Your task to perform on an android device: Clear the cart on amazon.com. Add bose soundlink to the cart on amazon.com Image 0: 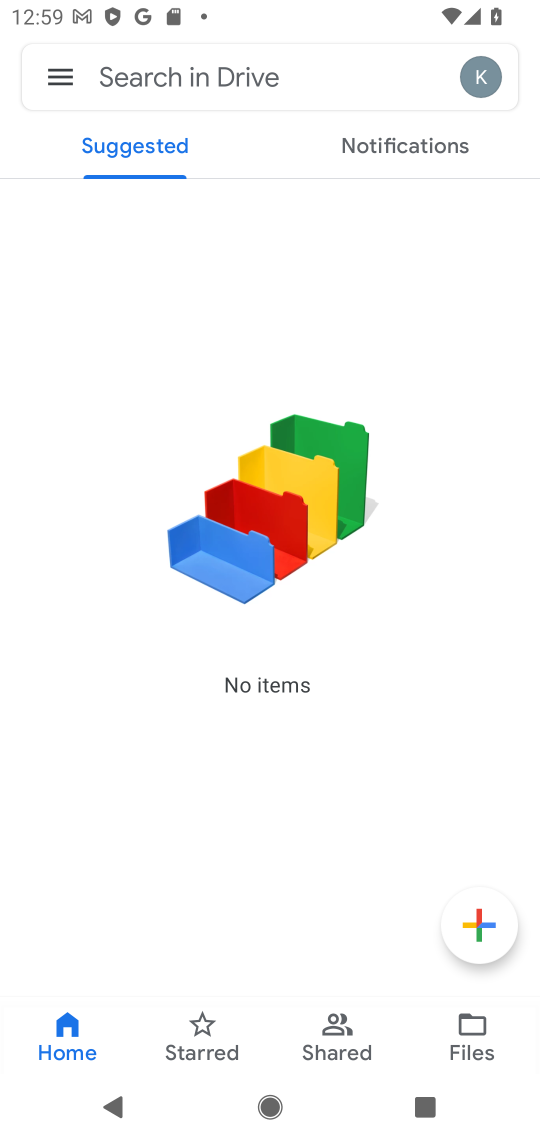
Step 0: press home button
Your task to perform on an android device: Clear the cart on amazon.com. Add bose soundlink to the cart on amazon.com Image 1: 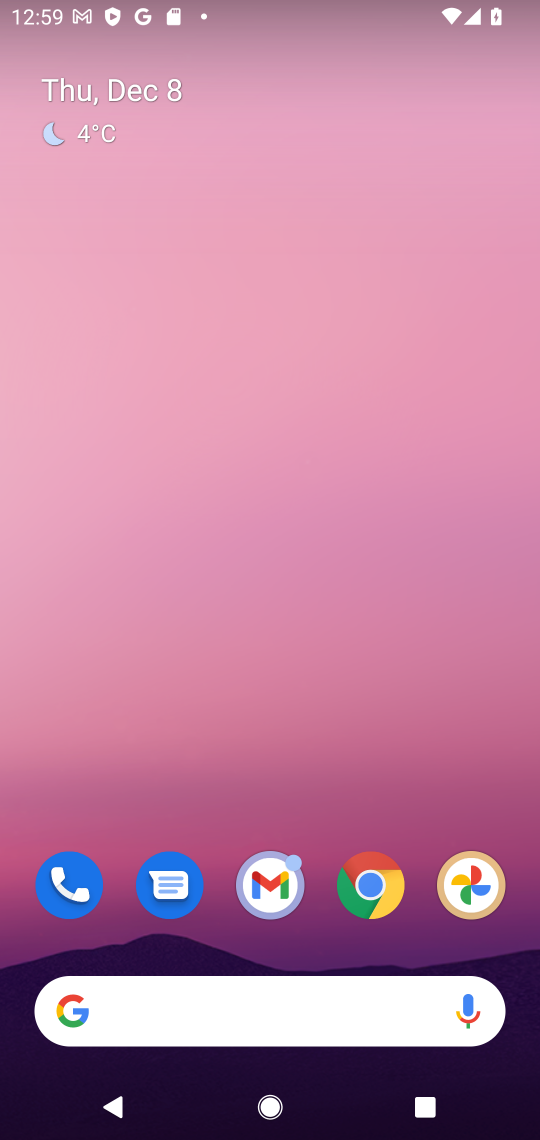
Step 1: click (375, 888)
Your task to perform on an android device: Clear the cart on amazon.com. Add bose soundlink to the cart on amazon.com Image 2: 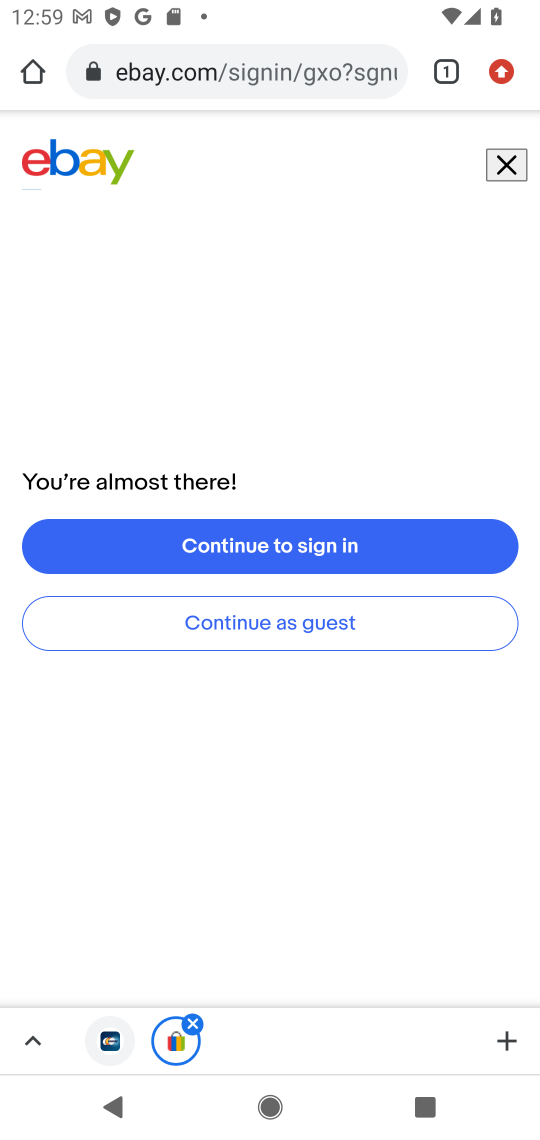
Step 2: click (260, 59)
Your task to perform on an android device: Clear the cart on amazon.com. Add bose soundlink to the cart on amazon.com Image 3: 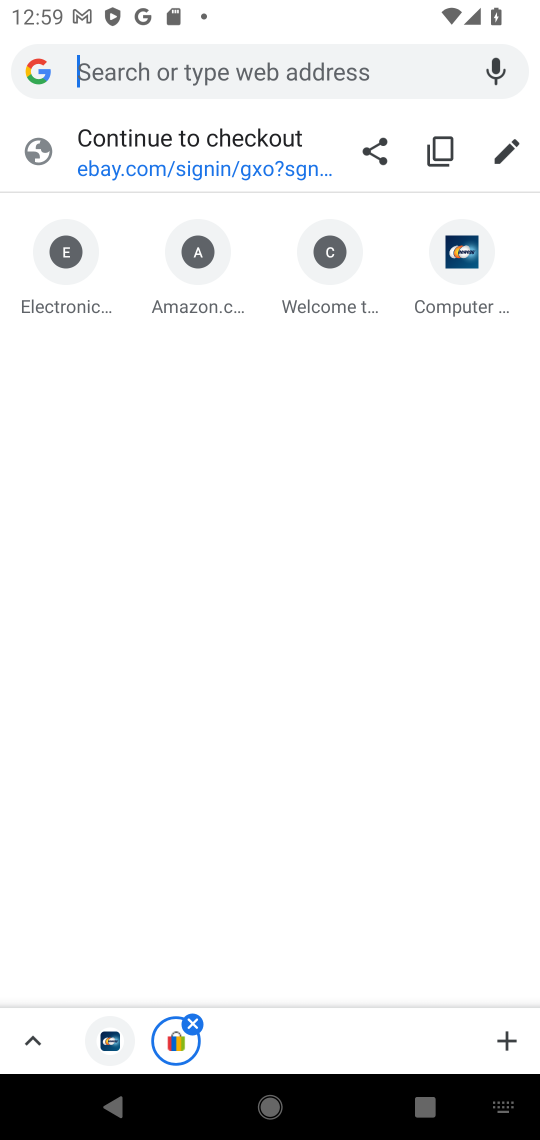
Step 3: type "AMAZON"
Your task to perform on an android device: Clear the cart on amazon.com. Add bose soundlink to the cart on amazon.com Image 4: 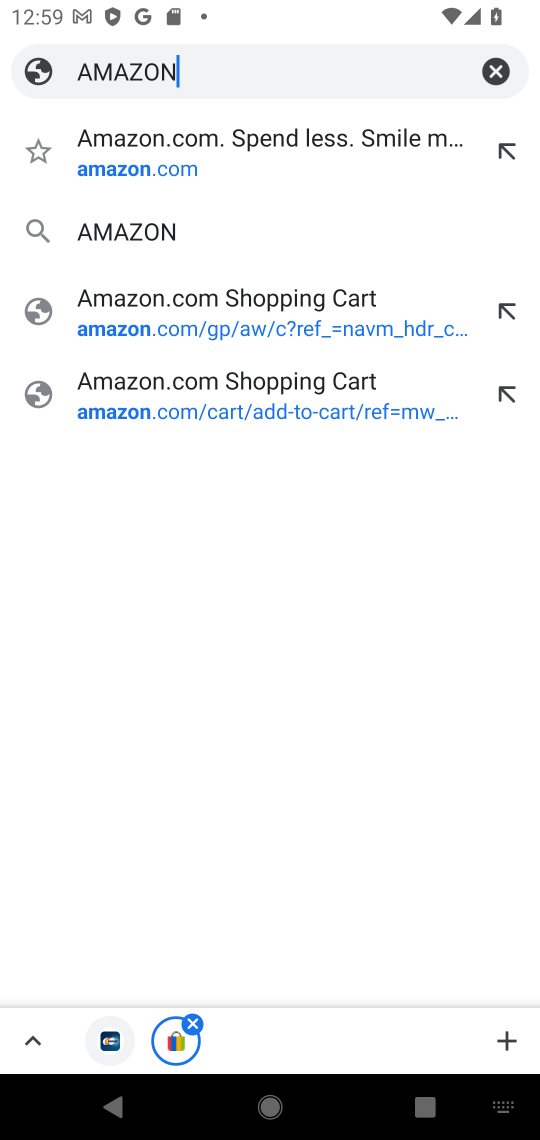
Step 4: click (183, 157)
Your task to perform on an android device: Clear the cart on amazon.com. Add bose soundlink to the cart on amazon.com Image 5: 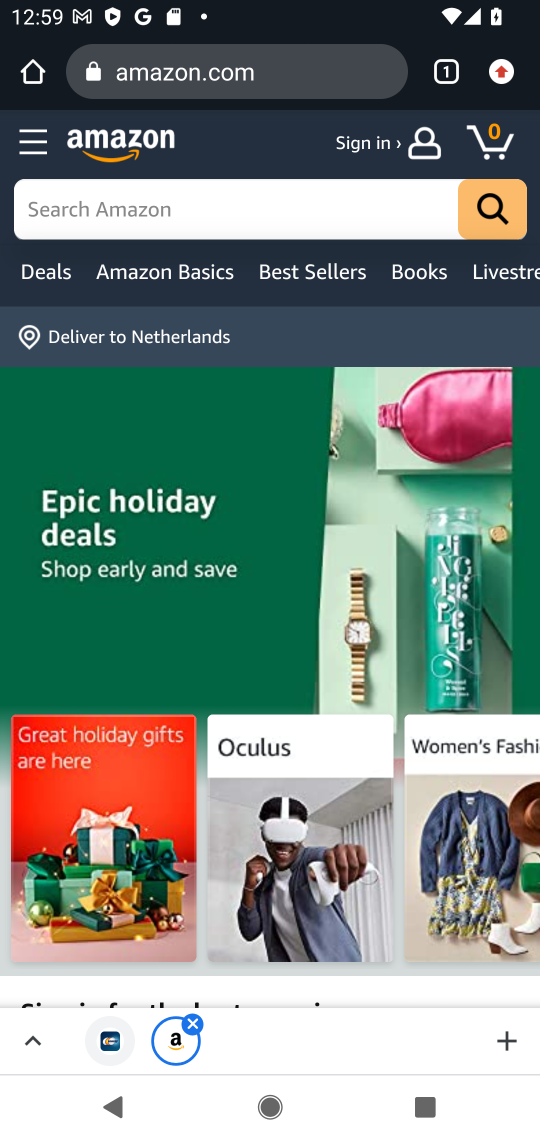
Step 5: click (207, 205)
Your task to perform on an android device: Clear the cart on amazon.com. Add bose soundlink to the cart on amazon.com Image 6: 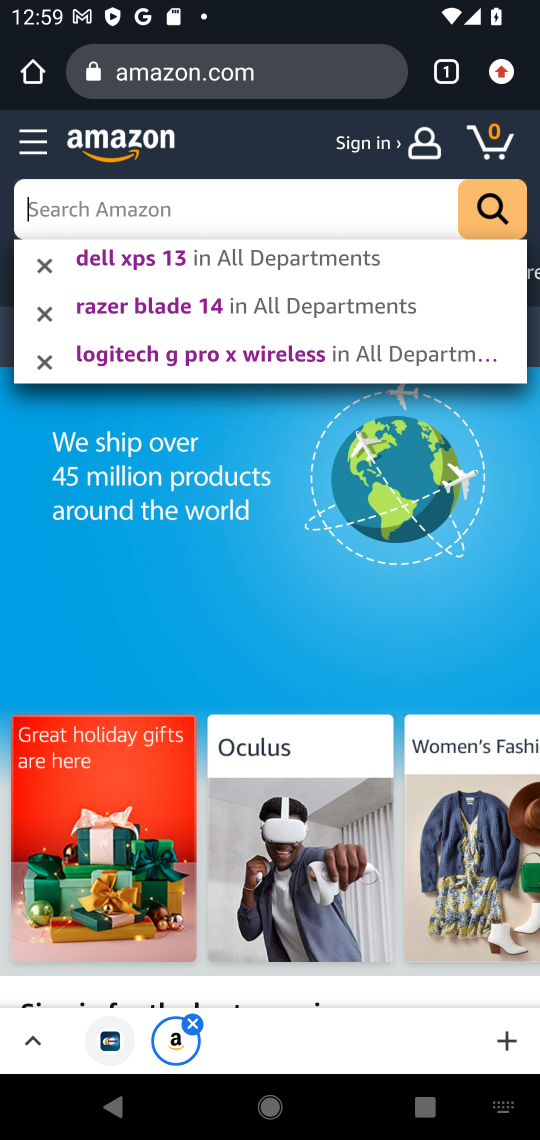
Step 6: type "bose soundlink"
Your task to perform on an android device: Clear the cart on amazon.com. Add bose soundlink to the cart on amazon.com Image 7: 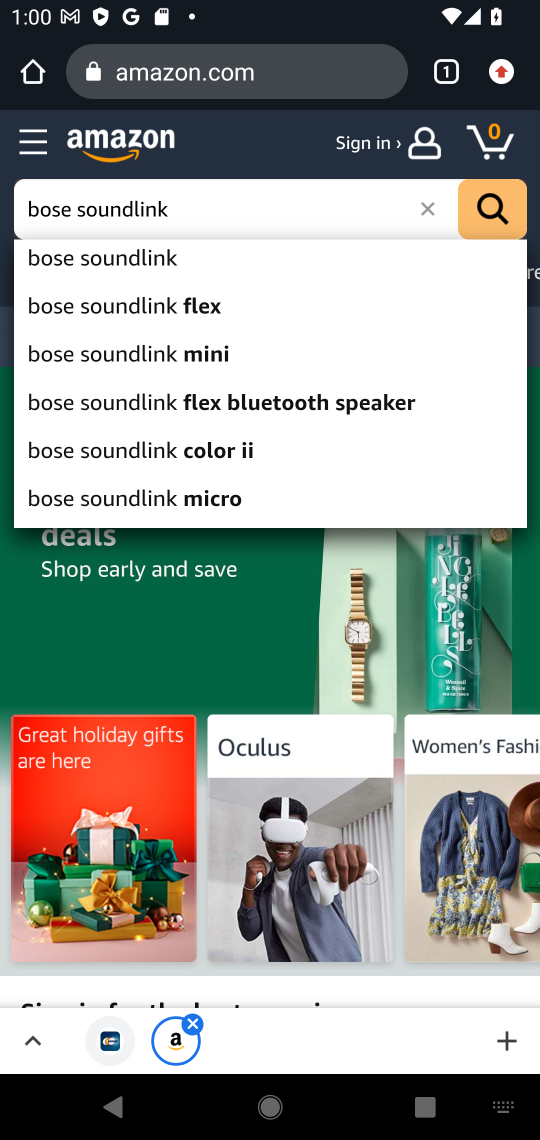
Step 7: click (197, 258)
Your task to perform on an android device: Clear the cart on amazon.com. Add bose soundlink to the cart on amazon.com Image 8: 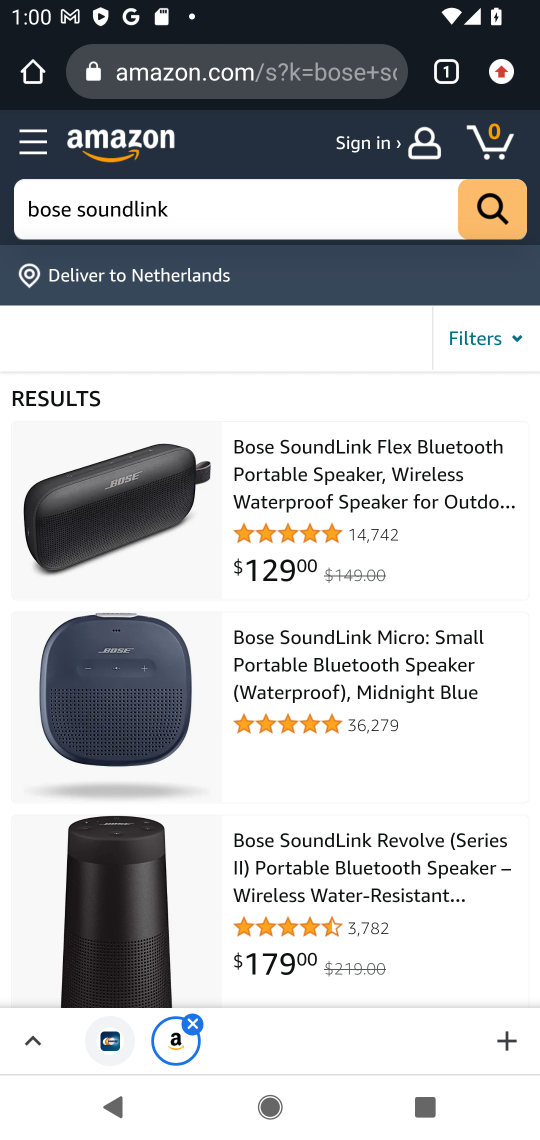
Step 8: click (144, 504)
Your task to perform on an android device: Clear the cart on amazon.com. Add bose soundlink to the cart on amazon.com Image 9: 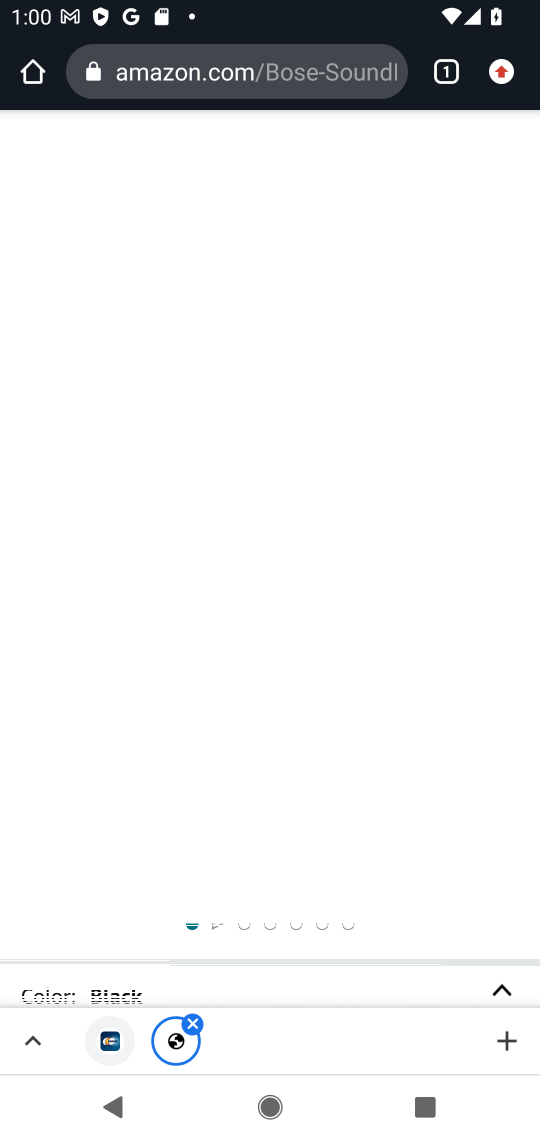
Step 9: task complete